Your task to perform on an android device: Open the calendar app, open the side menu, and click the "Day" option Image 0: 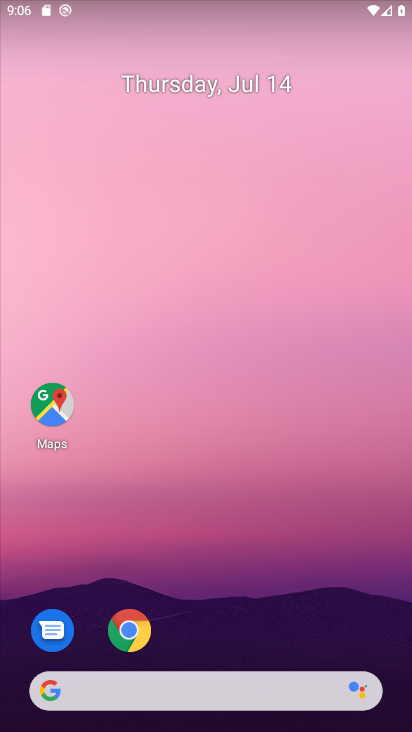
Step 0: drag from (219, 568) to (267, 107)
Your task to perform on an android device: Open the calendar app, open the side menu, and click the "Day" option Image 1: 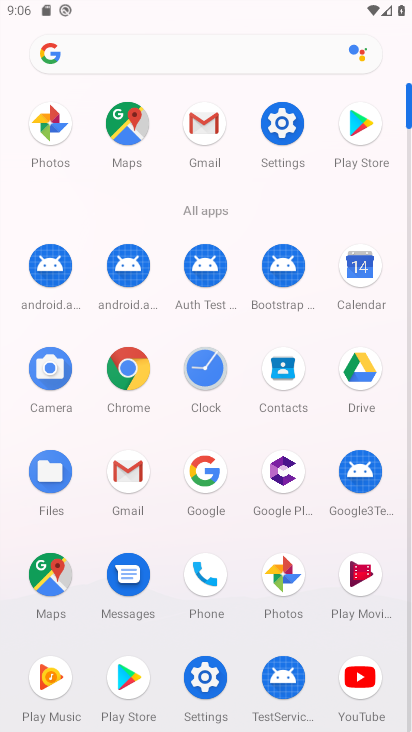
Step 1: click (361, 260)
Your task to perform on an android device: Open the calendar app, open the side menu, and click the "Day" option Image 2: 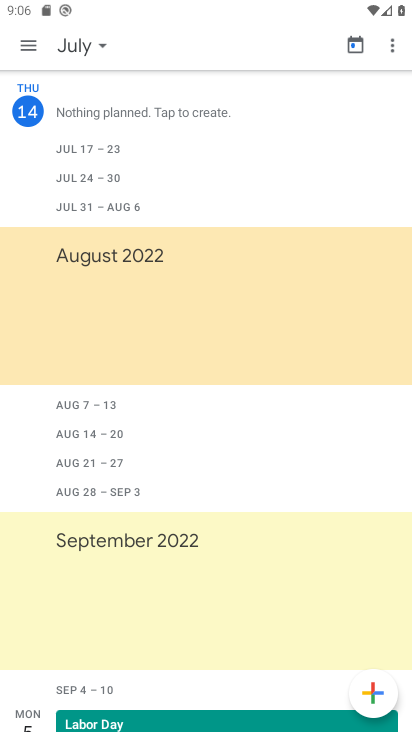
Step 2: click (38, 46)
Your task to perform on an android device: Open the calendar app, open the side menu, and click the "Day" option Image 3: 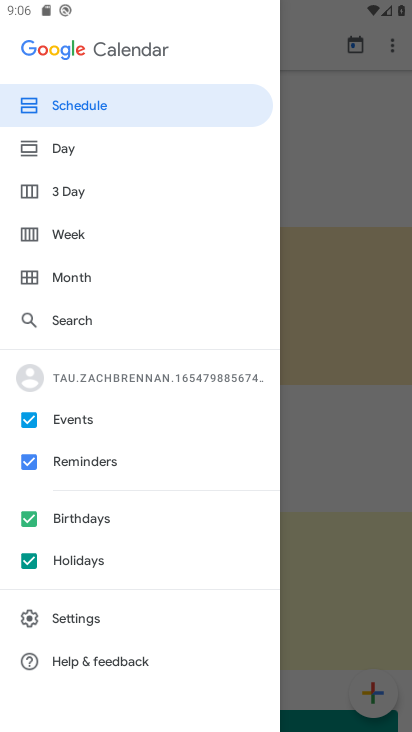
Step 3: click (84, 160)
Your task to perform on an android device: Open the calendar app, open the side menu, and click the "Day" option Image 4: 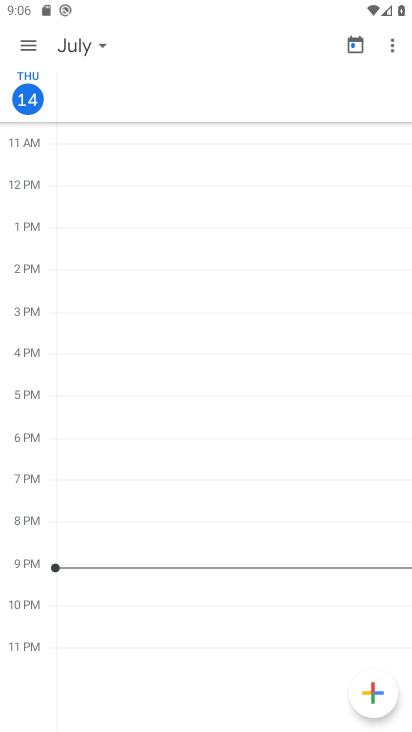
Step 4: task complete